Your task to perform on an android device: turn on improve location accuracy Image 0: 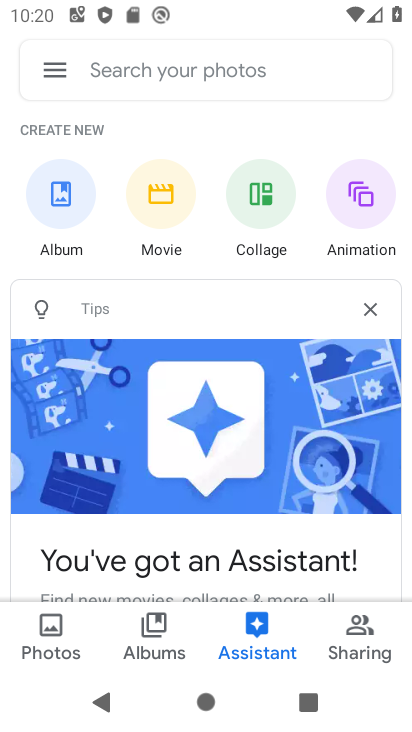
Step 0: press home button
Your task to perform on an android device: turn on improve location accuracy Image 1: 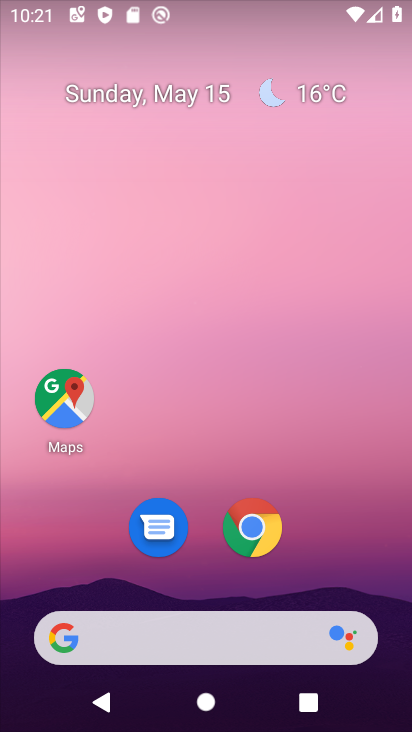
Step 1: drag from (353, 541) to (400, 423)
Your task to perform on an android device: turn on improve location accuracy Image 2: 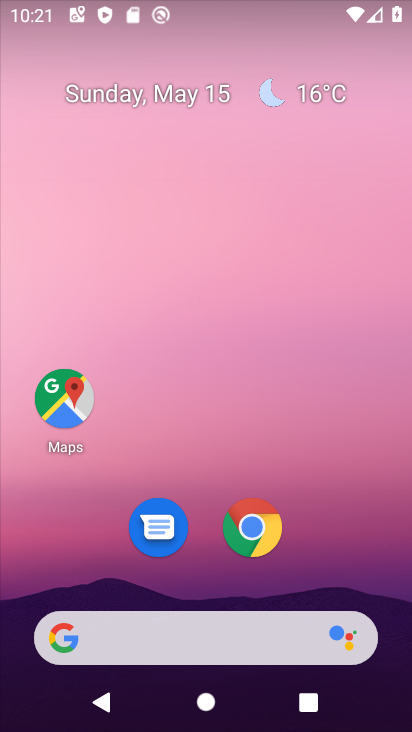
Step 2: drag from (351, 502) to (370, 10)
Your task to perform on an android device: turn on improve location accuracy Image 3: 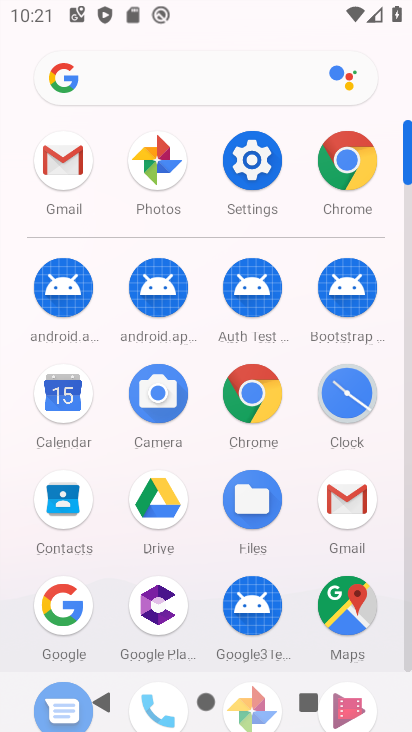
Step 3: click (252, 171)
Your task to perform on an android device: turn on improve location accuracy Image 4: 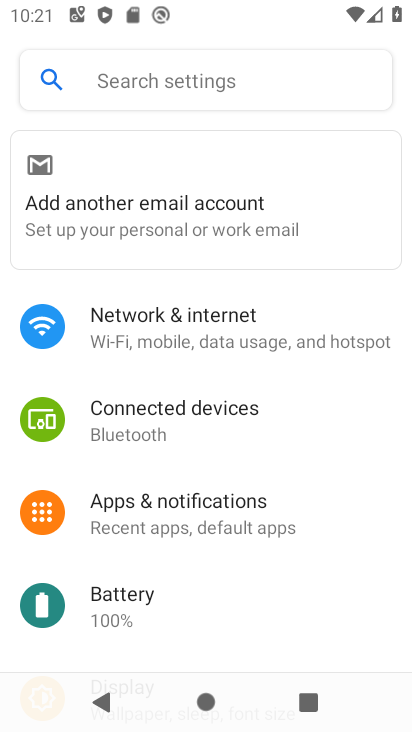
Step 4: drag from (355, 471) to (340, 107)
Your task to perform on an android device: turn on improve location accuracy Image 5: 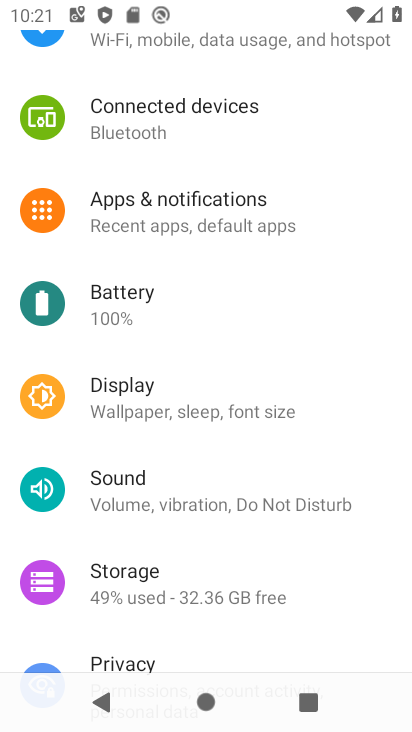
Step 5: drag from (334, 467) to (325, 224)
Your task to perform on an android device: turn on improve location accuracy Image 6: 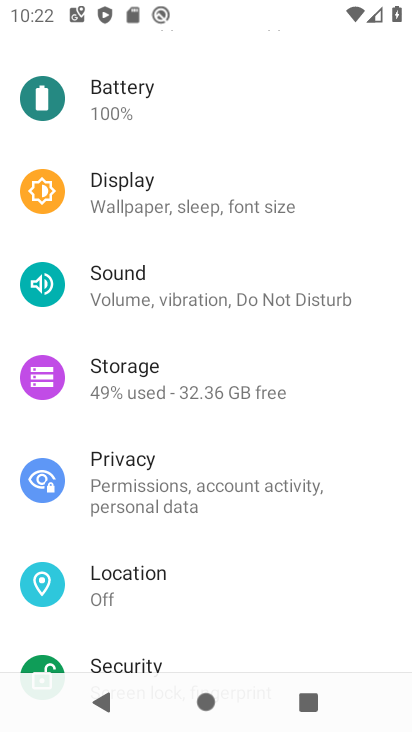
Step 6: click (101, 583)
Your task to perform on an android device: turn on improve location accuracy Image 7: 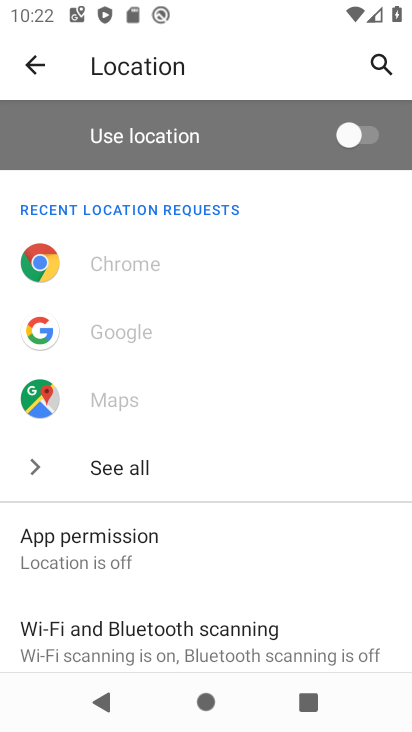
Step 7: drag from (256, 566) to (207, 150)
Your task to perform on an android device: turn on improve location accuracy Image 8: 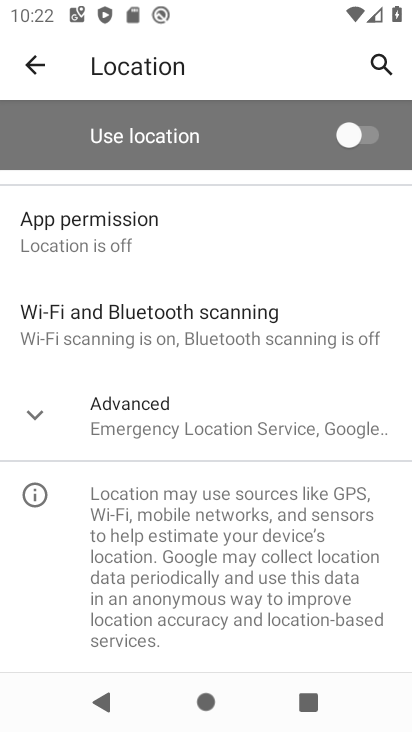
Step 8: click (31, 416)
Your task to perform on an android device: turn on improve location accuracy Image 9: 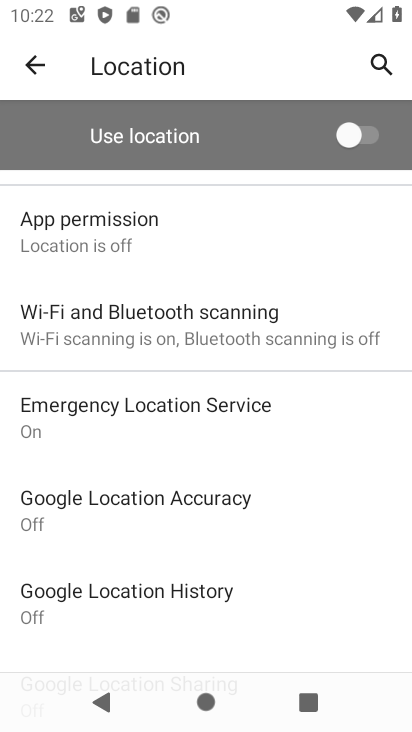
Step 9: click (127, 501)
Your task to perform on an android device: turn on improve location accuracy Image 10: 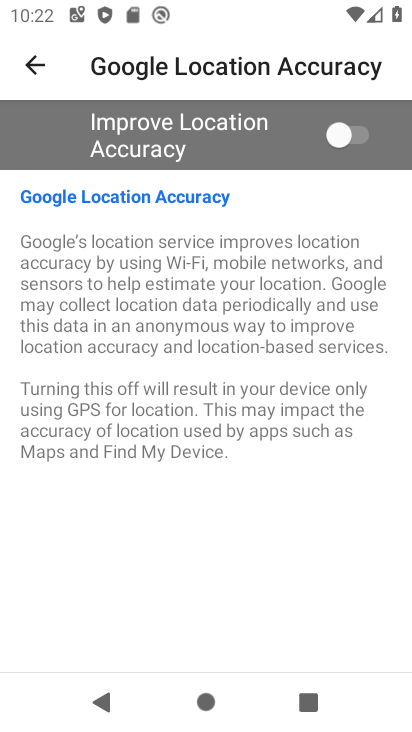
Step 10: click (342, 144)
Your task to perform on an android device: turn on improve location accuracy Image 11: 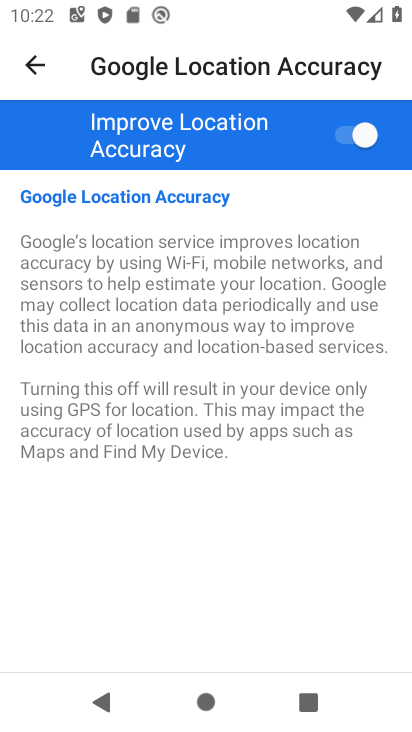
Step 11: task complete